Your task to perform on an android device: Go to Google maps Image 0: 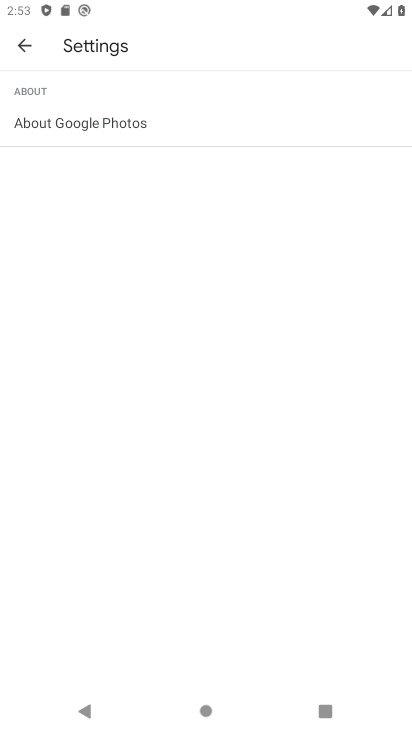
Step 0: press home button
Your task to perform on an android device: Go to Google maps Image 1: 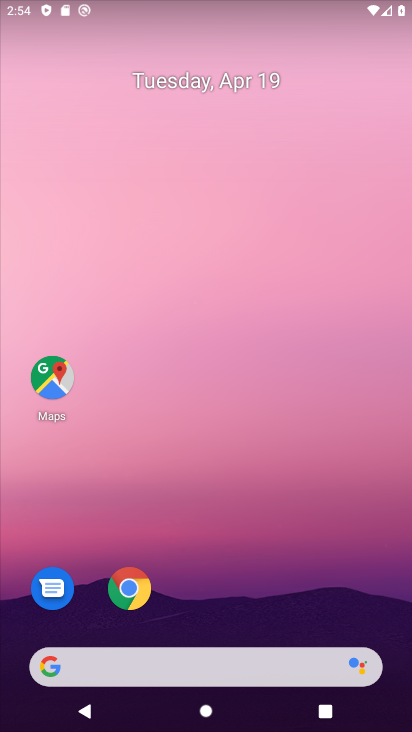
Step 1: drag from (242, 578) to (298, 217)
Your task to perform on an android device: Go to Google maps Image 2: 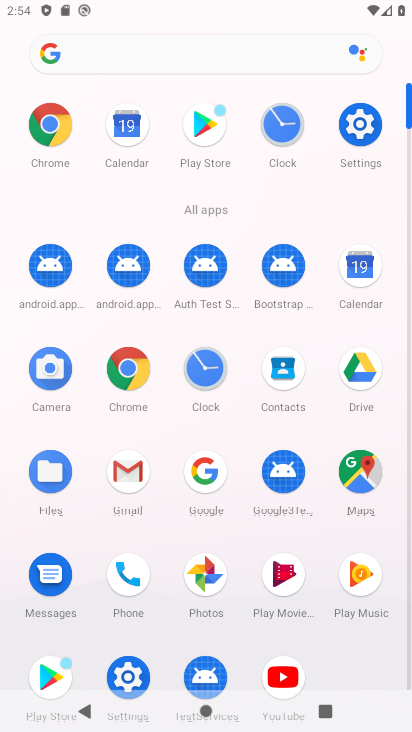
Step 2: click (365, 485)
Your task to perform on an android device: Go to Google maps Image 3: 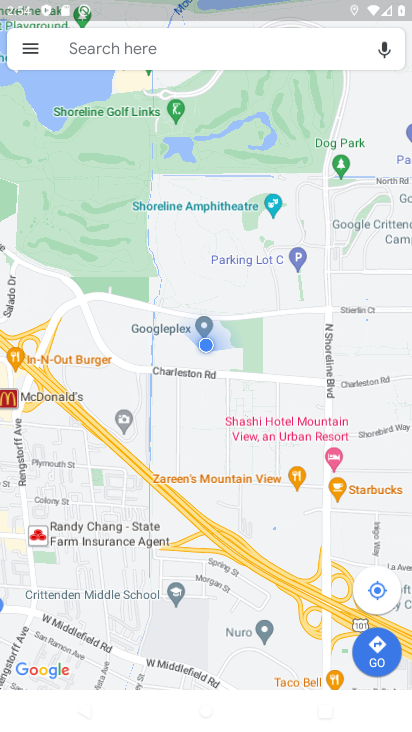
Step 3: click (210, 399)
Your task to perform on an android device: Go to Google maps Image 4: 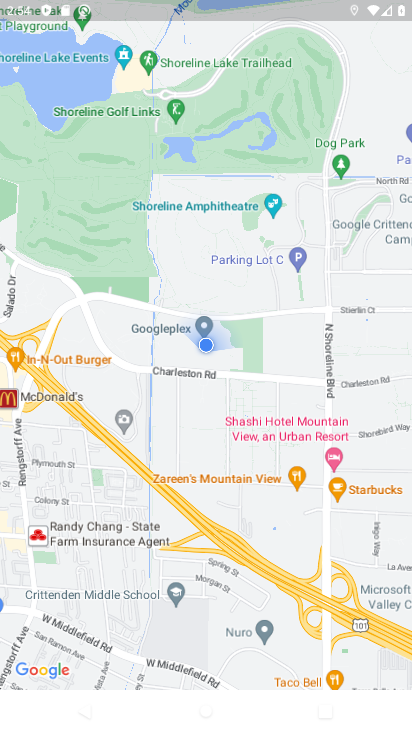
Step 4: task complete